Your task to perform on an android device: Open notification settings Image 0: 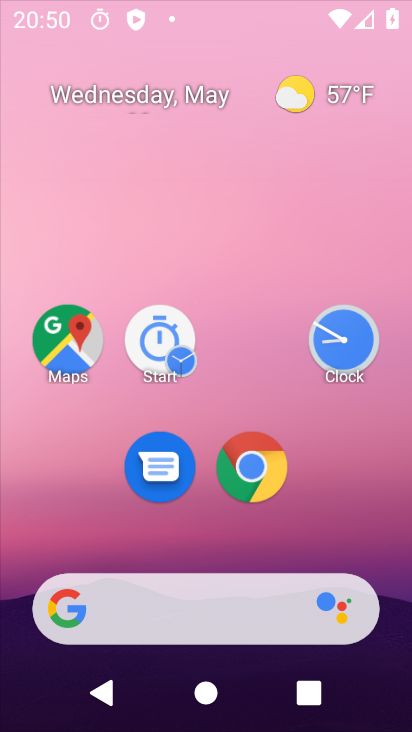
Step 0: click (184, 119)
Your task to perform on an android device: Open notification settings Image 1: 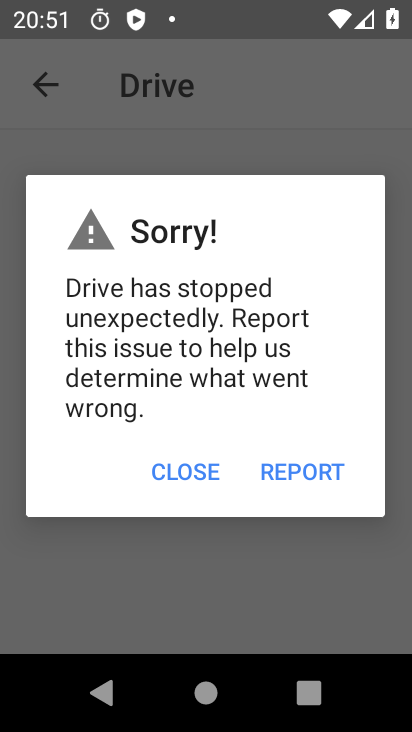
Step 1: click (202, 461)
Your task to perform on an android device: Open notification settings Image 2: 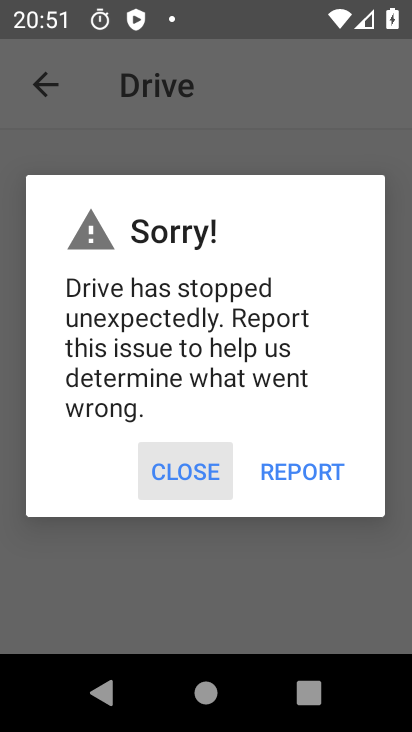
Step 2: click (202, 460)
Your task to perform on an android device: Open notification settings Image 3: 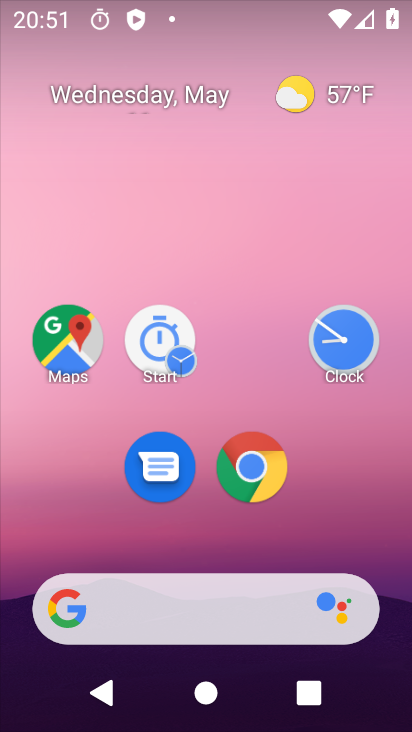
Step 3: drag from (322, 411) to (110, 4)
Your task to perform on an android device: Open notification settings Image 4: 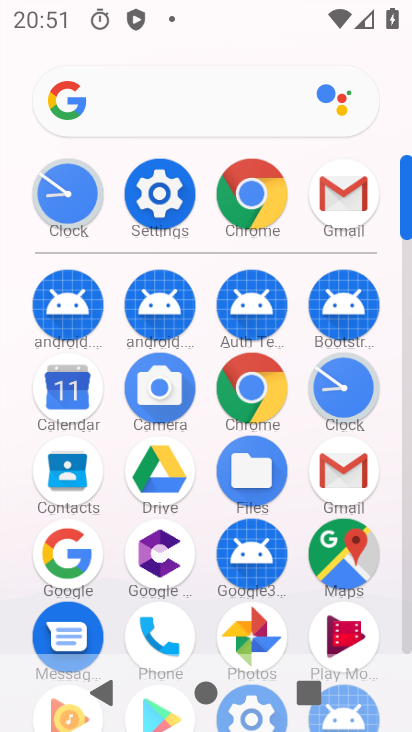
Step 4: click (164, 184)
Your task to perform on an android device: Open notification settings Image 5: 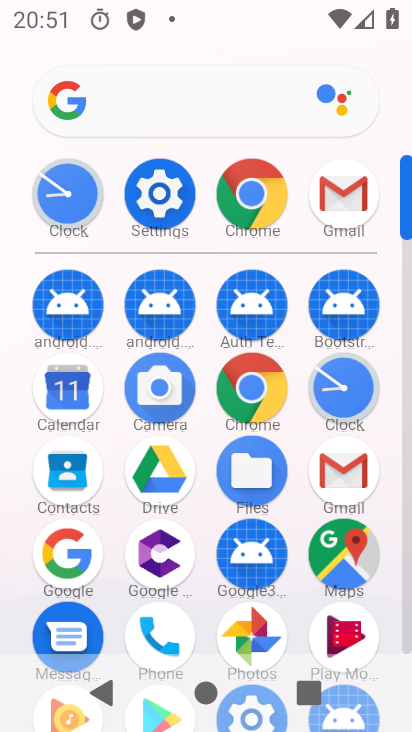
Step 5: click (164, 187)
Your task to perform on an android device: Open notification settings Image 6: 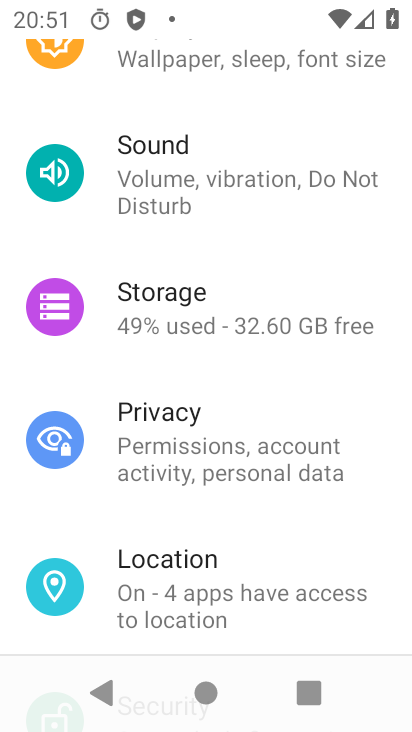
Step 6: drag from (264, 538) to (177, 250)
Your task to perform on an android device: Open notification settings Image 7: 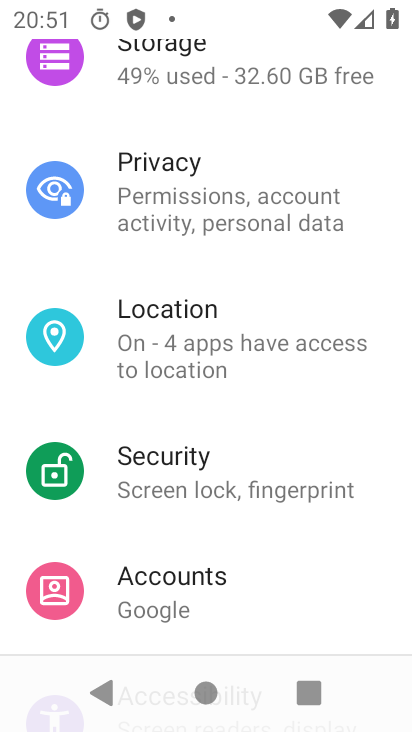
Step 7: drag from (194, 249) to (272, 392)
Your task to perform on an android device: Open notification settings Image 8: 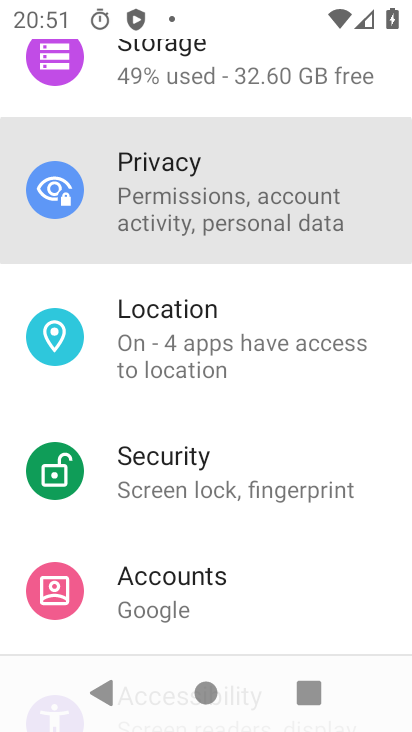
Step 8: drag from (173, 137) to (206, 481)
Your task to perform on an android device: Open notification settings Image 9: 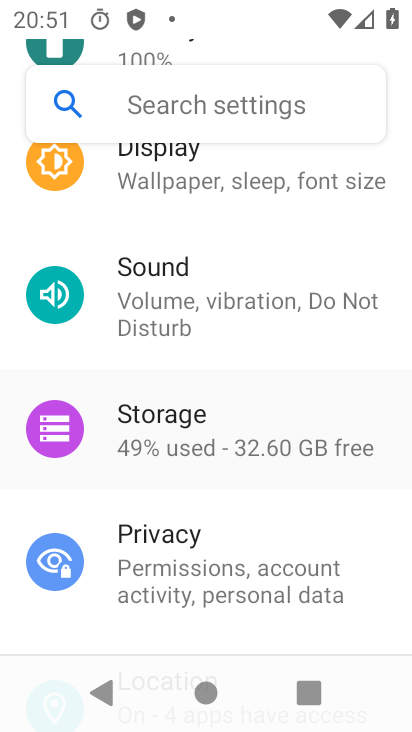
Step 9: drag from (147, 154) to (315, 547)
Your task to perform on an android device: Open notification settings Image 10: 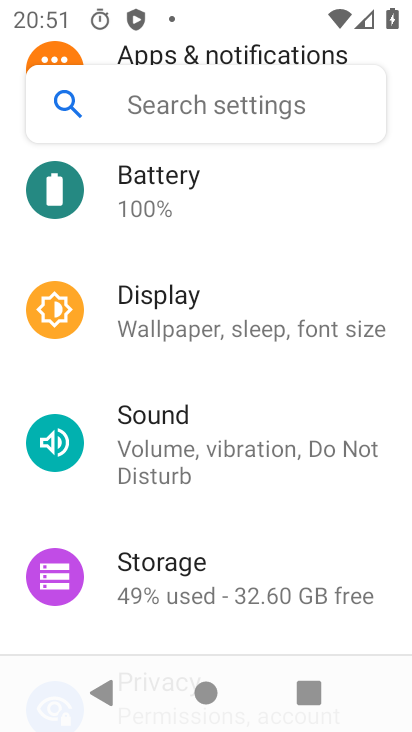
Step 10: drag from (235, 228) to (325, 459)
Your task to perform on an android device: Open notification settings Image 11: 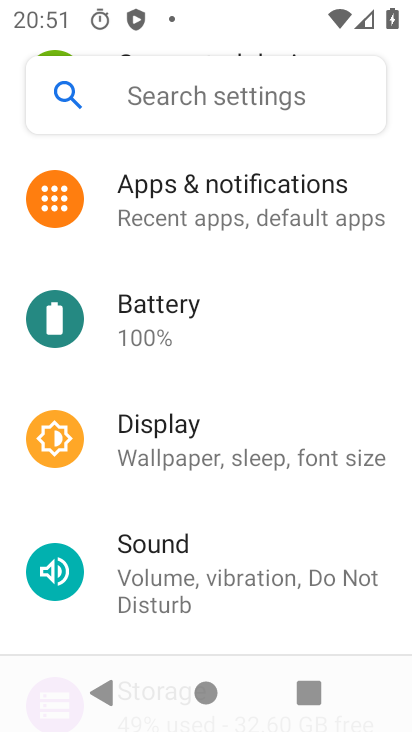
Step 11: drag from (165, 184) to (207, 415)
Your task to perform on an android device: Open notification settings Image 12: 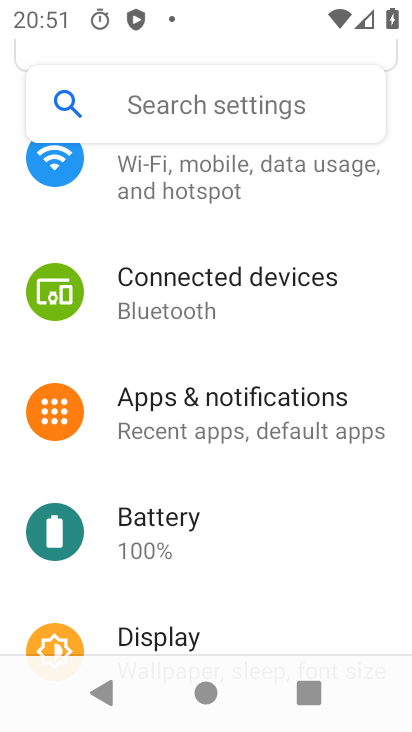
Step 12: click (233, 402)
Your task to perform on an android device: Open notification settings Image 13: 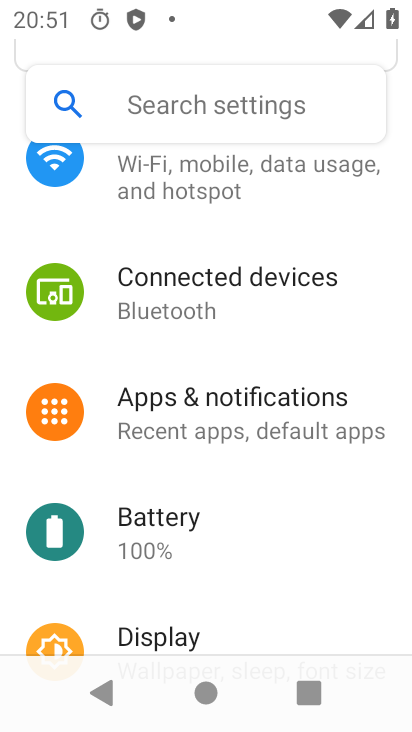
Step 13: click (244, 420)
Your task to perform on an android device: Open notification settings Image 14: 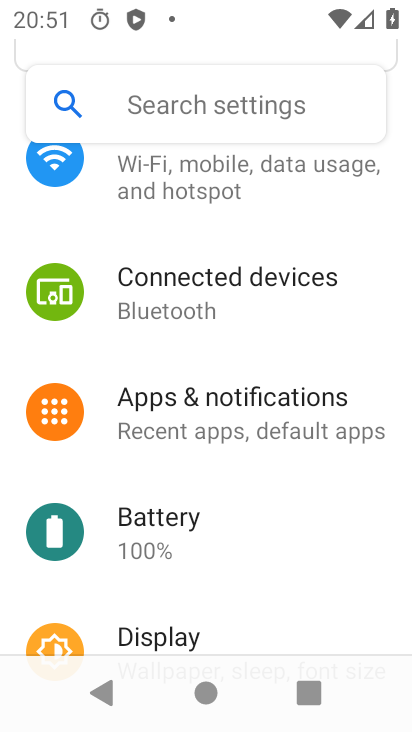
Step 14: drag from (242, 419) to (218, 383)
Your task to perform on an android device: Open notification settings Image 15: 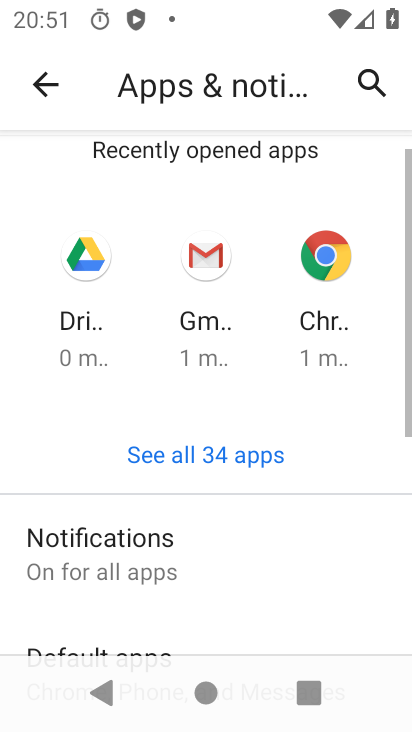
Step 15: click (112, 56)
Your task to perform on an android device: Open notification settings Image 16: 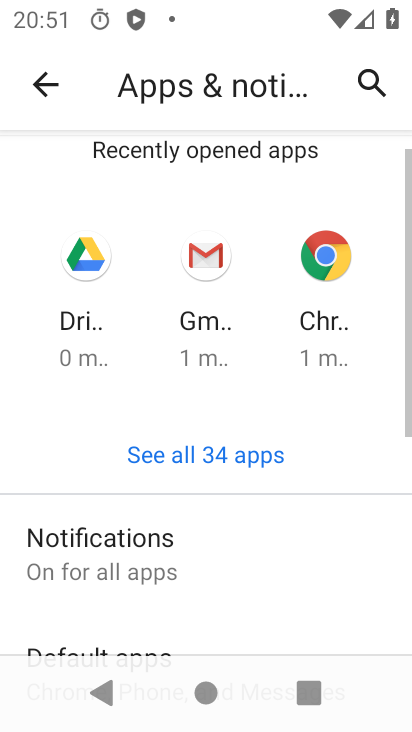
Step 16: drag from (214, 439) to (155, 31)
Your task to perform on an android device: Open notification settings Image 17: 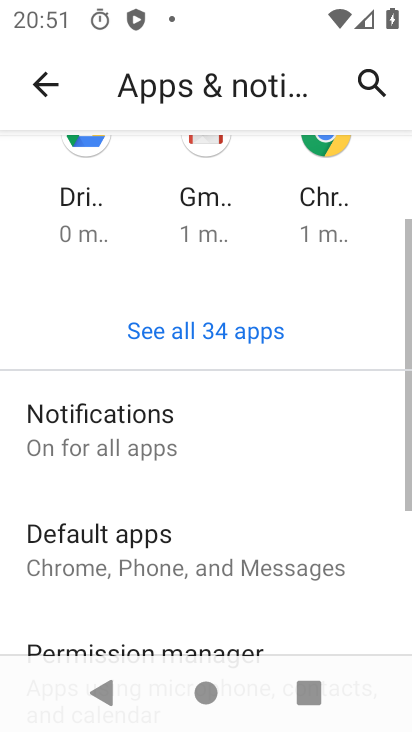
Step 17: drag from (189, 466) to (117, 137)
Your task to perform on an android device: Open notification settings Image 18: 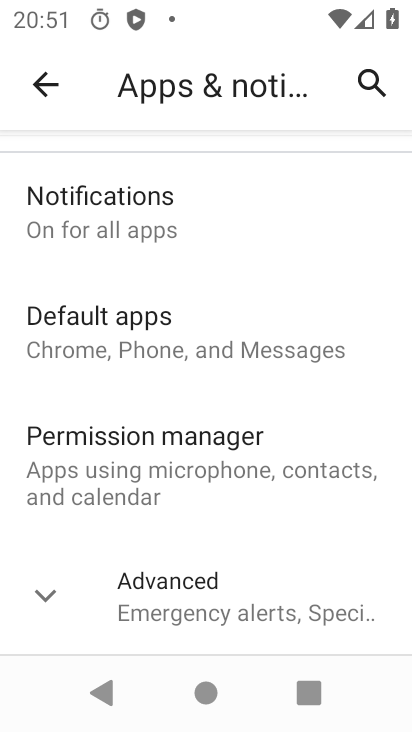
Step 18: click (96, 202)
Your task to perform on an android device: Open notification settings Image 19: 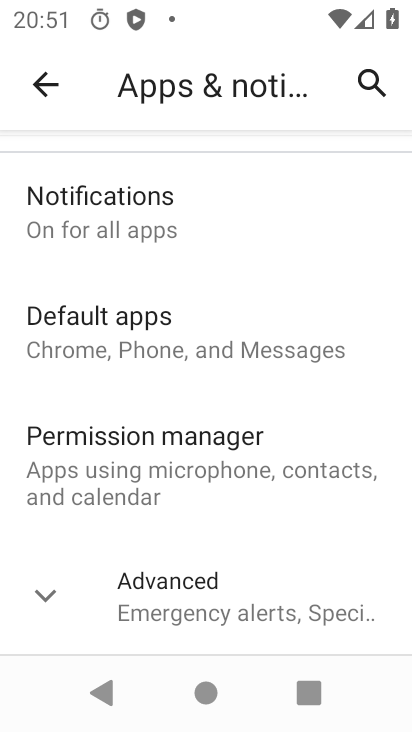
Step 19: click (93, 204)
Your task to perform on an android device: Open notification settings Image 20: 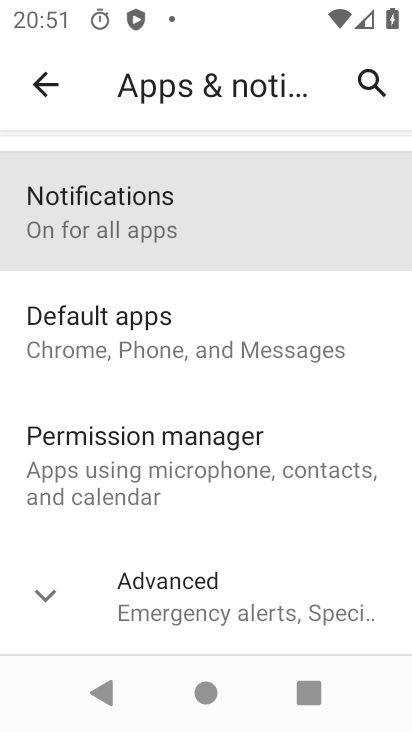
Step 20: click (93, 207)
Your task to perform on an android device: Open notification settings Image 21: 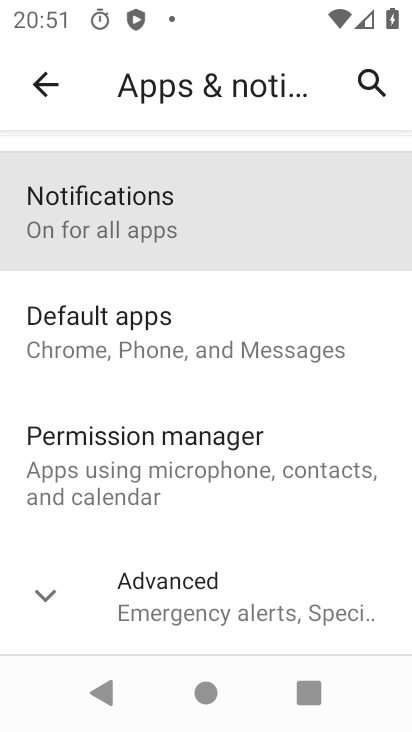
Step 21: click (93, 207)
Your task to perform on an android device: Open notification settings Image 22: 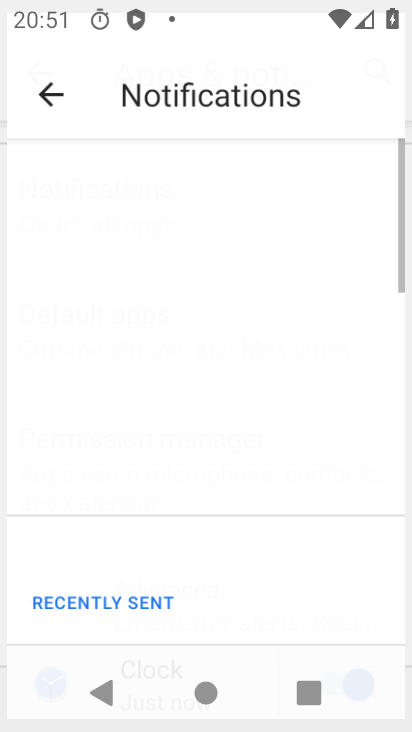
Step 22: click (93, 208)
Your task to perform on an android device: Open notification settings Image 23: 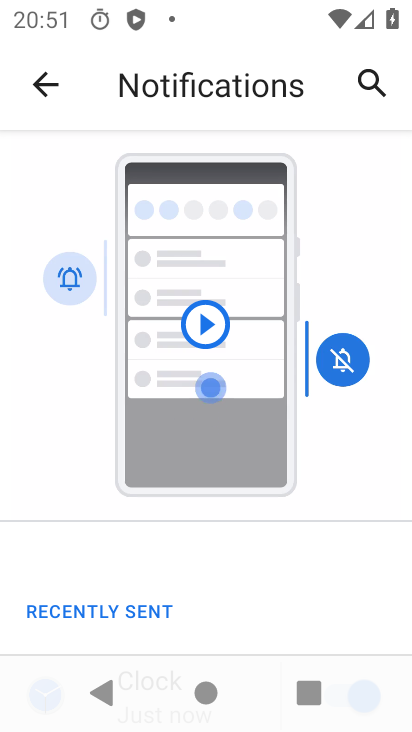
Step 23: click (47, 85)
Your task to perform on an android device: Open notification settings Image 24: 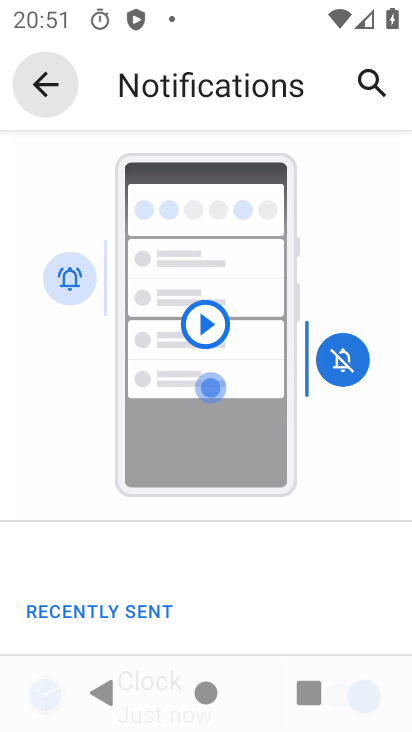
Step 24: click (46, 86)
Your task to perform on an android device: Open notification settings Image 25: 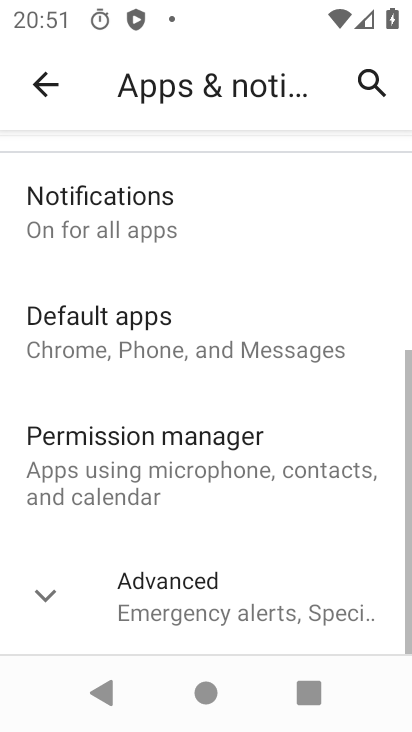
Step 25: drag from (248, 434) to (210, 240)
Your task to perform on an android device: Open notification settings Image 26: 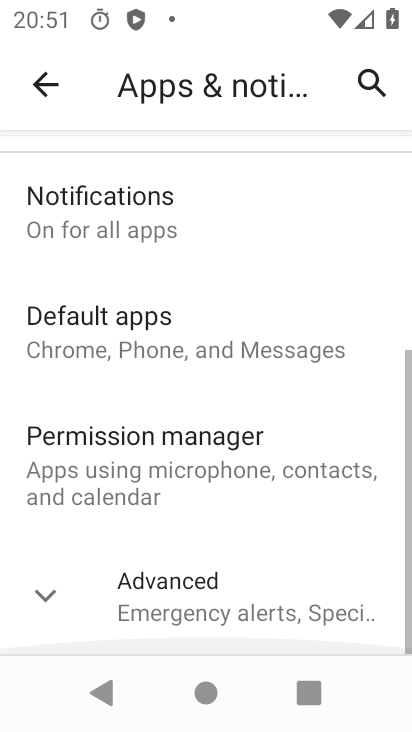
Step 26: click (97, 202)
Your task to perform on an android device: Open notification settings Image 27: 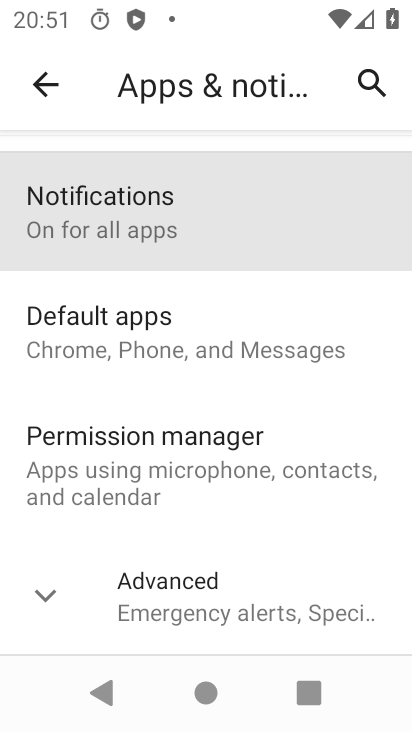
Step 27: click (97, 205)
Your task to perform on an android device: Open notification settings Image 28: 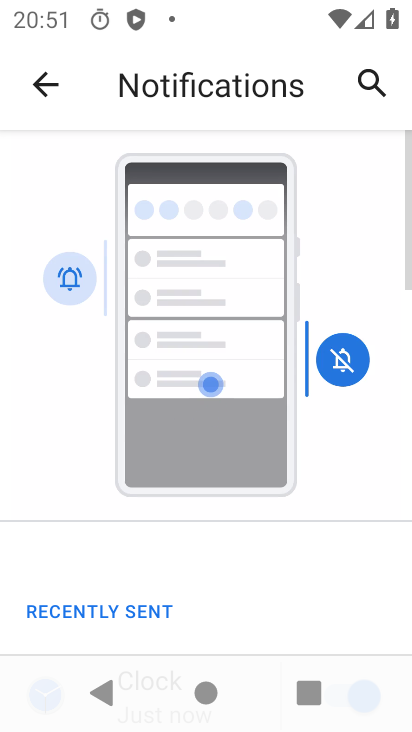
Step 28: drag from (323, 457) to (204, 172)
Your task to perform on an android device: Open notification settings Image 29: 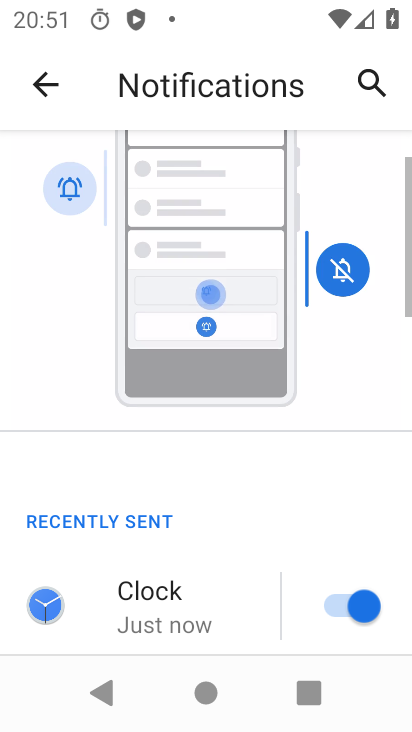
Step 29: drag from (182, 489) to (84, 45)
Your task to perform on an android device: Open notification settings Image 30: 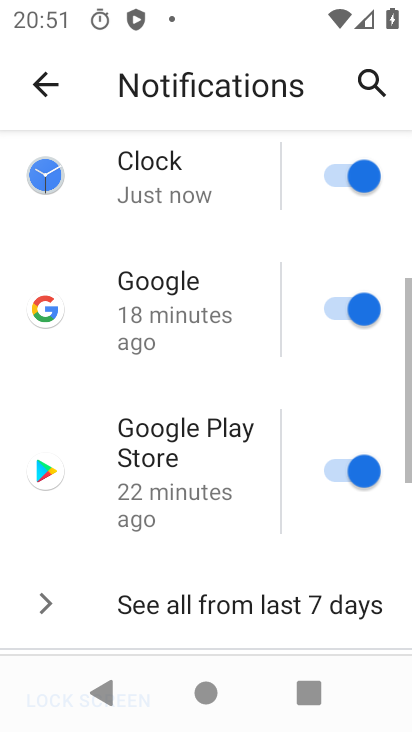
Step 30: drag from (219, 388) to (125, 24)
Your task to perform on an android device: Open notification settings Image 31: 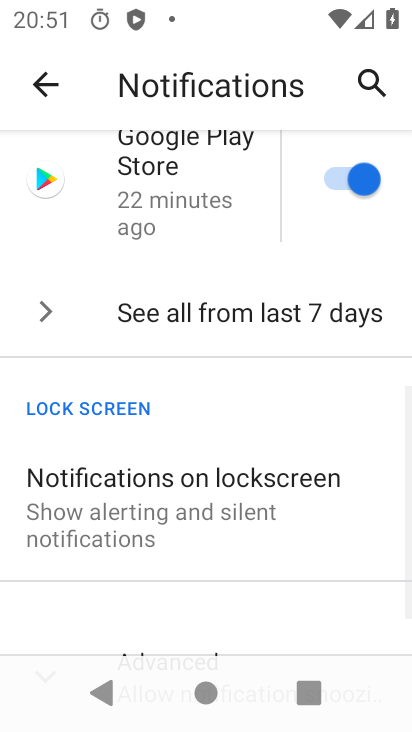
Step 31: drag from (235, 505) to (111, 5)
Your task to perform on an android device: Open notification settings Image 32: 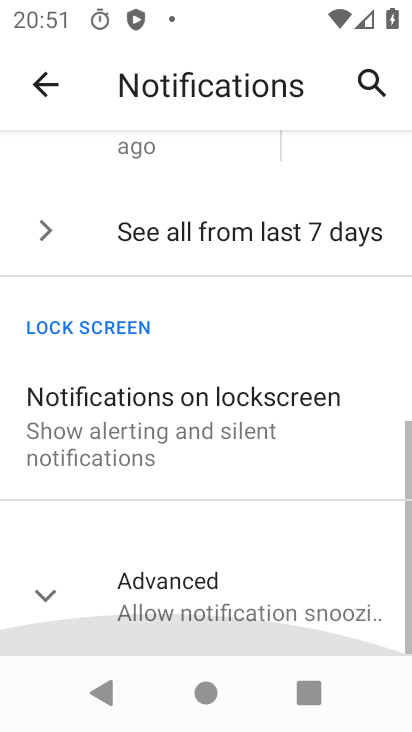
Step 32: drag from (236, 397) to (197, 94)
Your task to perform on an android device: Open notification settings Image 33: 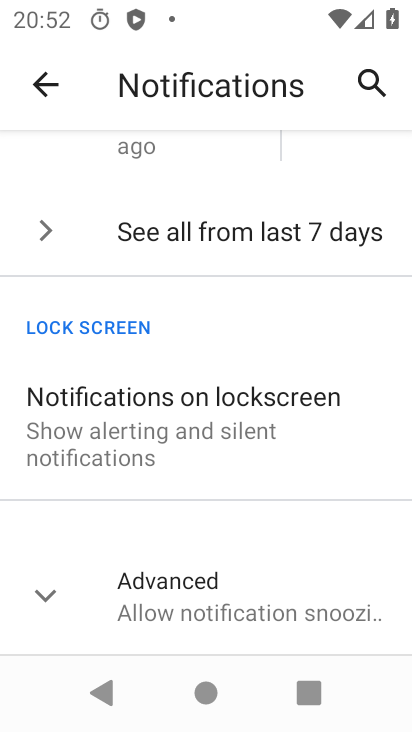
Step 33: drag from (228, 493) to (182, 247)
Your task to perform on an android device: Open notification settings Image 34: 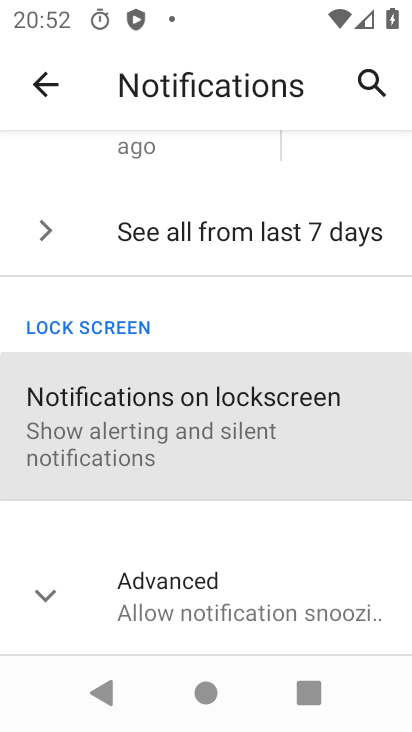
Step 34: drag from (249, 497) to (238, 52)
Your task to perform on an android device: Open notification settings Image 35: 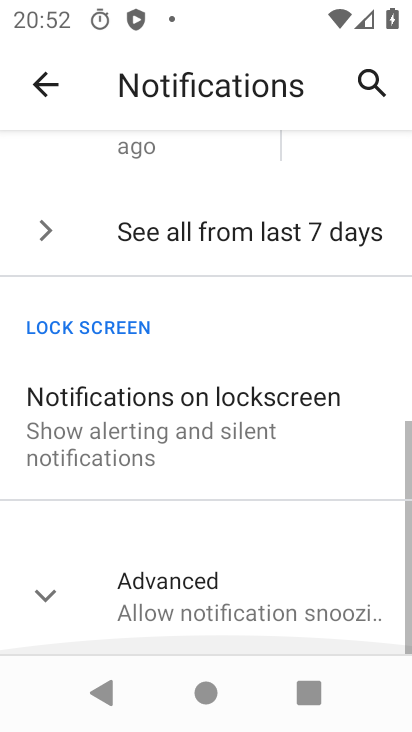
Step 35: drag from (227, 557) to (323, 50)
Your task to perform on an android device: Open notification settings Image 36: 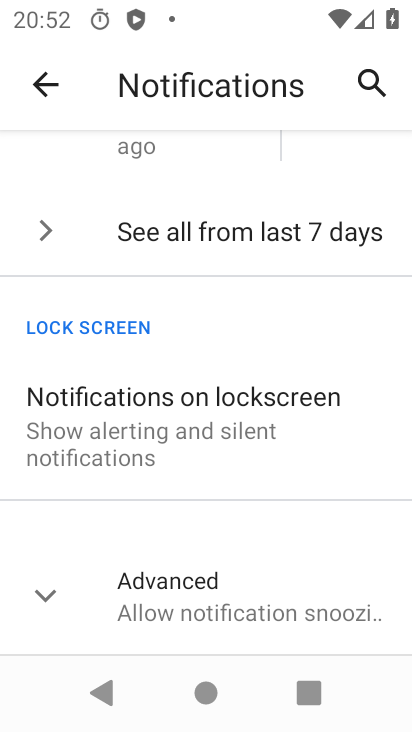
Step 36: click (217, 614)
Your task to perform on an android device: Open notification settings Image 37: 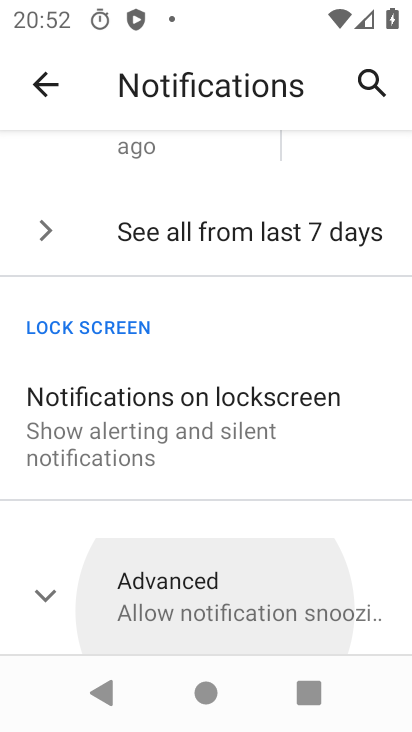
Step 37: click (190, 586)
Your task to perform on an android device: Open notification settings Image 38: 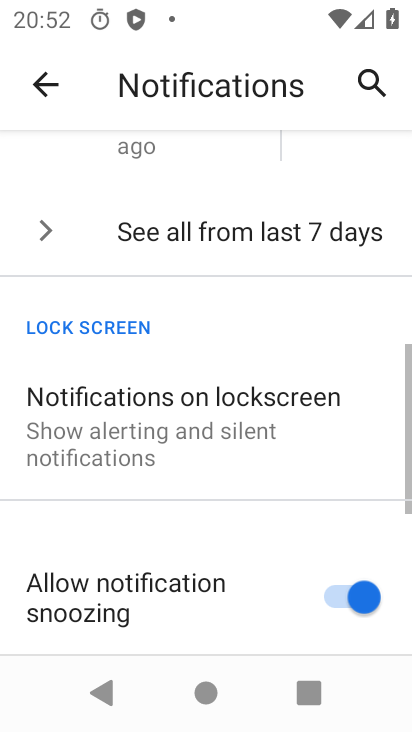
Step 38: drag from (233, 559) to (200, 18)
Your task to perform on an android device: Open notification settings Image 39: 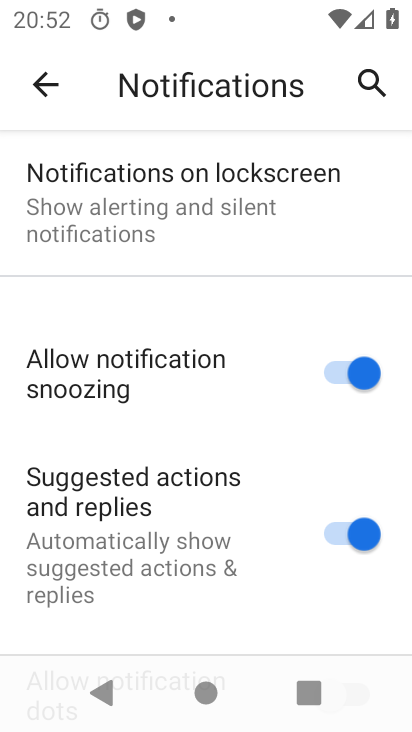
Step 39: drag from (242, 561) to (213, 159)
Your task to perform on an android device: Open notification settings Image 40: 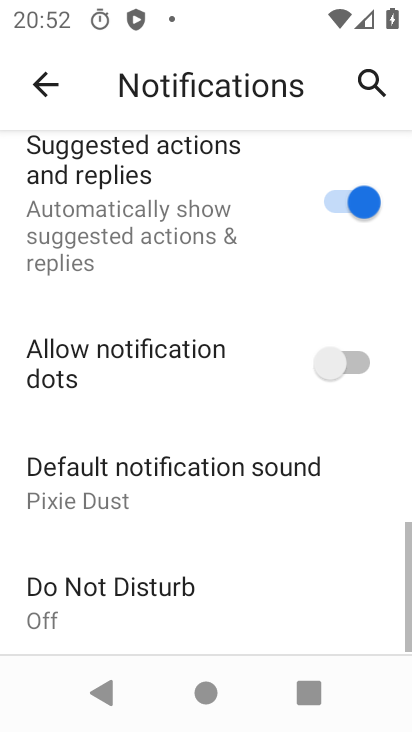
Step 40: drag from (226, 457) to (183, 181)
Your task to perform on an android device: Open notification settings Image 41: 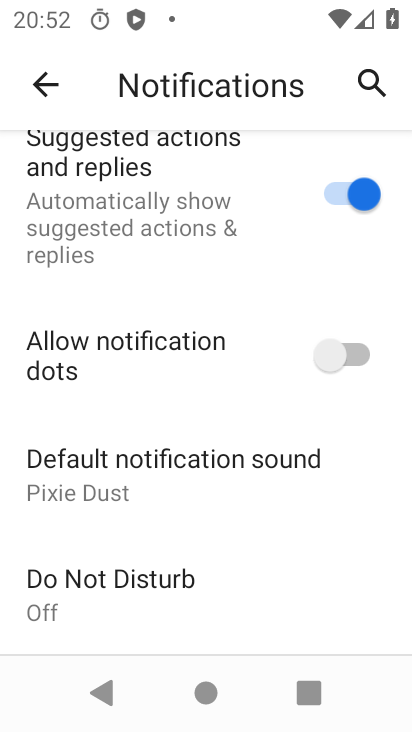
Step 41: drag from (258, 483) to (240, 20)
Your task to perform on an android device: Open notification settings Image 42: 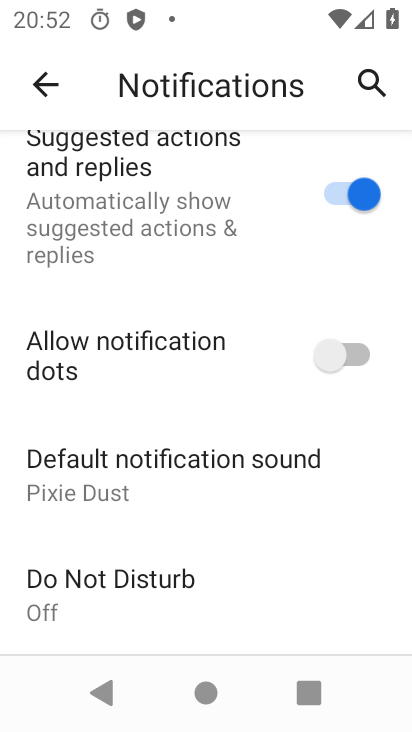
Step 42: drag from (239, 400) to (218, 94)
Your task to perform on an android device: Open notification settings Image 43: 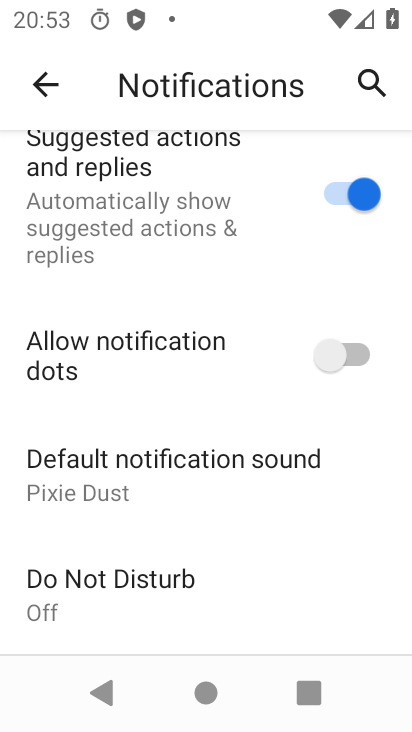
Step 43: click (336, 347)
Your task to perform on an android device: Open notification settings Image 44: 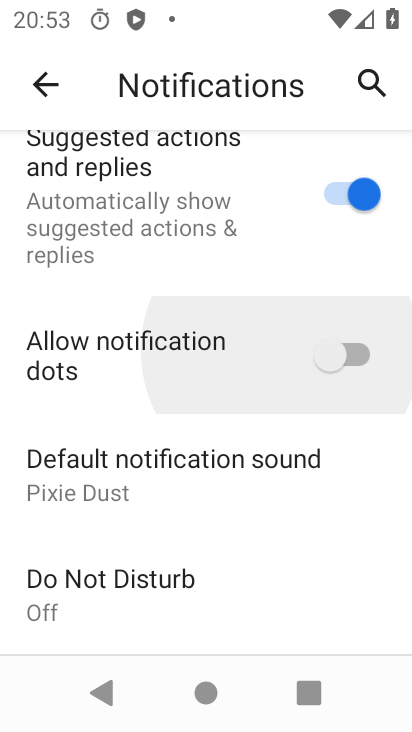
Step 44: click (336, 347)
Your task to perform on an android device: Open notification settings Image 45: 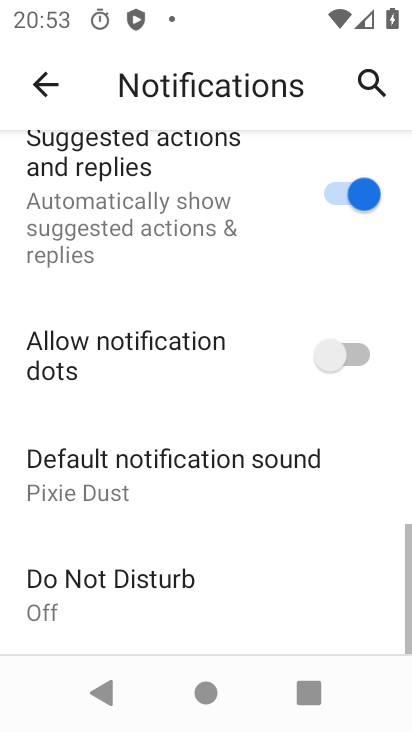
Step 45: drag from (304, 404) to (269, 81)
Your task to perform on an android device: Open notification settings Image 46: 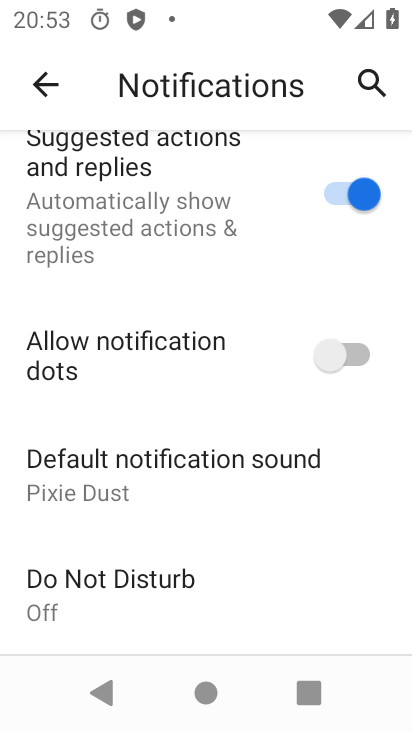
Step 46: click (336, 357)
Your task to perform on an android device: Open notification settings Image 47: 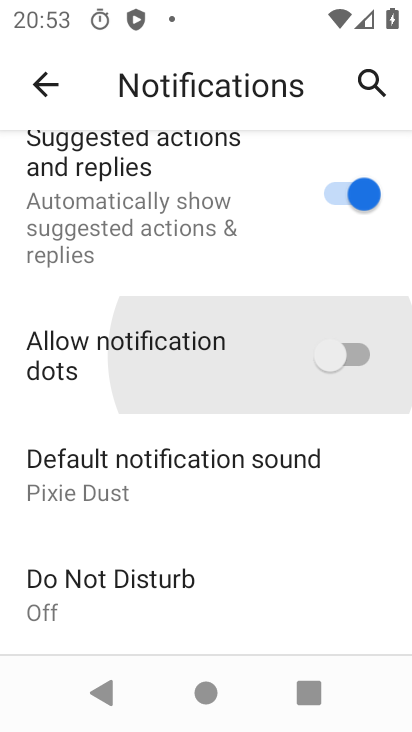
Step 47: click (336, 357)
Your task to perform on an android device: Open notification settings Image 48: 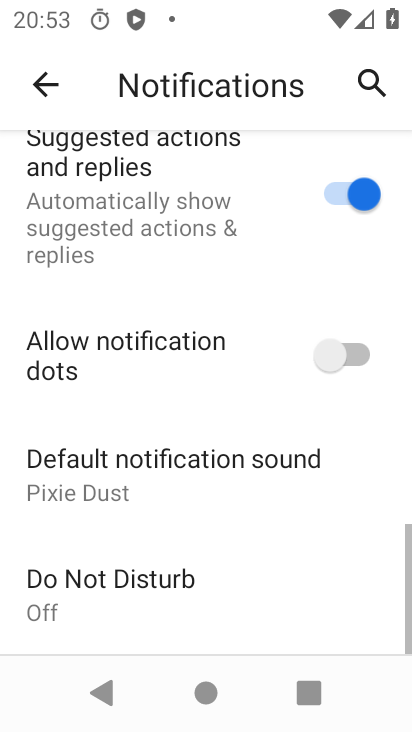
Step 48: click (262, 446)
Your task to perform on an android device: Open notification settings Image 49: 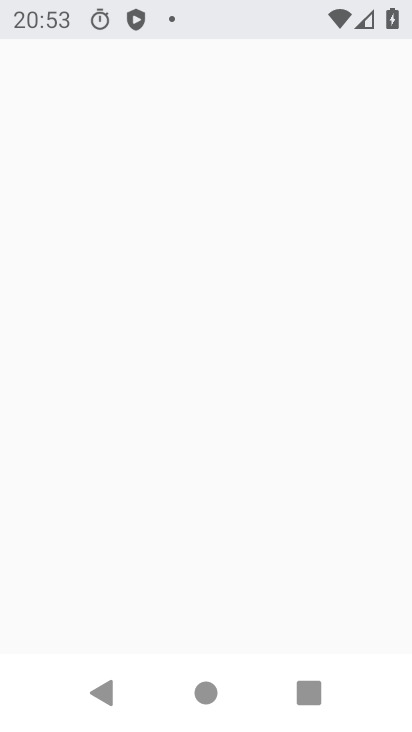
Step 49: click (339, 344)
Your task to perform on an android device: Open notification settings Image 50: 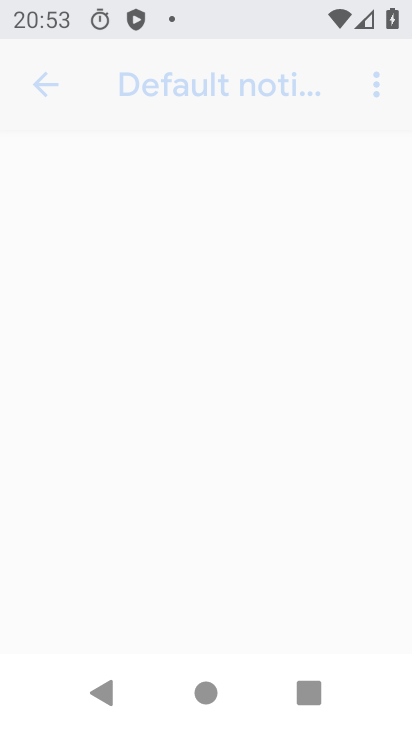
Step 50: click (339, 344)
Your task to perform on an android device: Open notification settings Image 51: 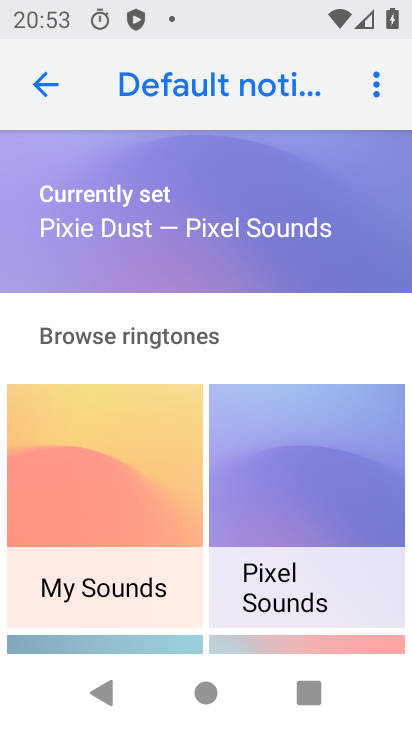
Step 51: click (30, 86)
Your task to perform on an android device: Open notification settings Image 52: 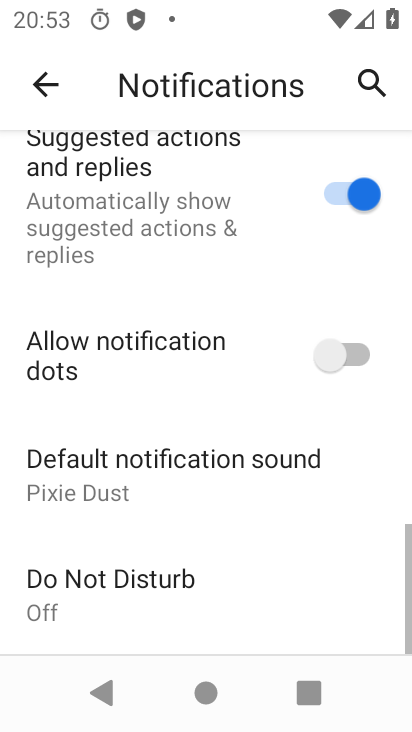
Step 52: click (33, 78)
Your task to perform on an android device: Open notification settings Image 53: 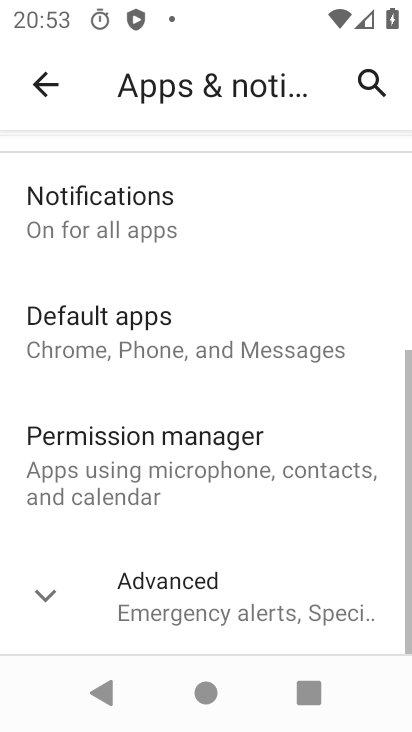
Step 53: drag from (247, 429) to (254, 121)
Your task to perform on an android device: Open notification settings Image 54: 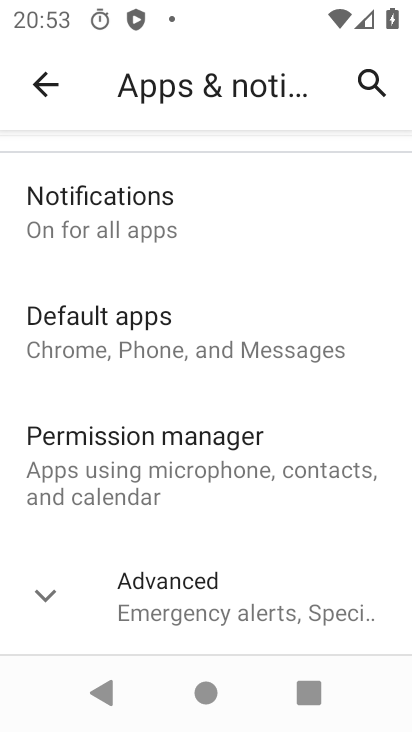
Step 54: click (50, 95)
Your task to perform on an android device: Open notification settings Image 55: 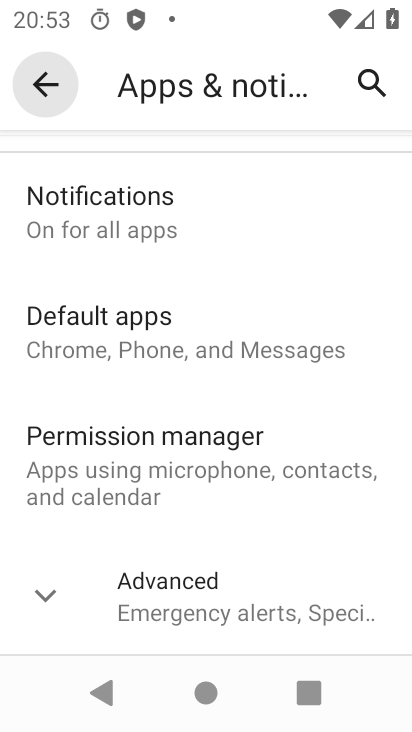
Step 55: click (50, 92)
Your task to perform on an android device: Open notification settings Image 56: 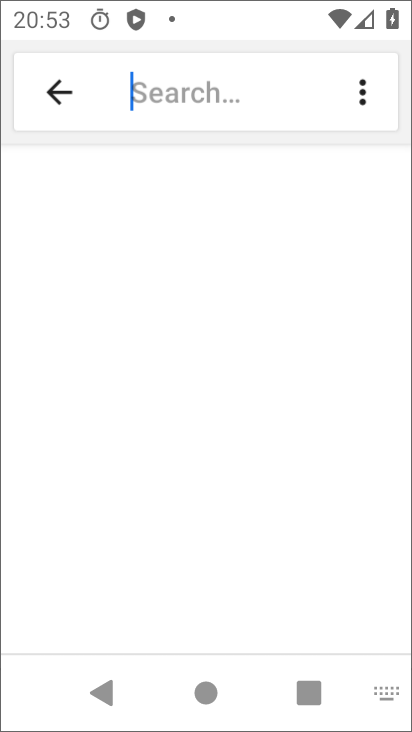
Step 56: drag from (251, 371) to (240, 115)
Your task to perform on an android device: Open notification settings Image 57: 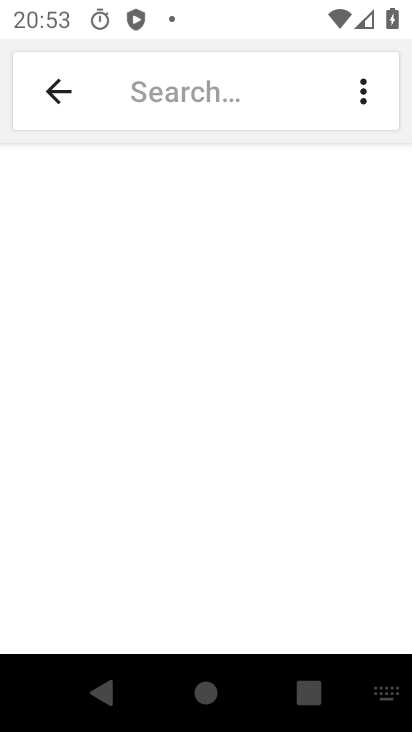
Step 57: drag from (290, 462) to (289, 268)
Your task to perform on an android device: Open notification settings Image 58: 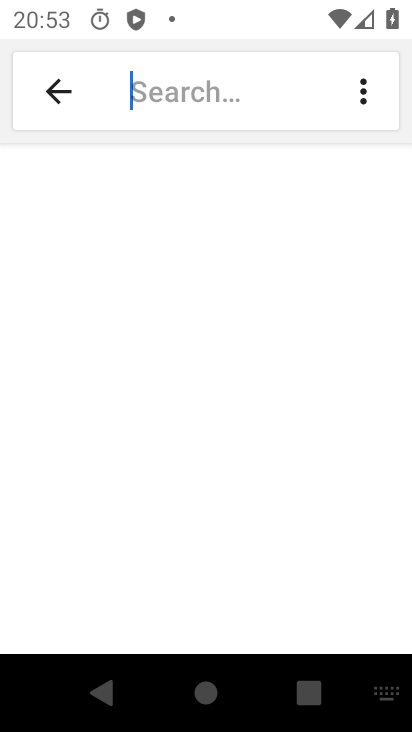
Step 58: click (54, 67)
Your task to perform on an android device: Open notification settings Image 59: 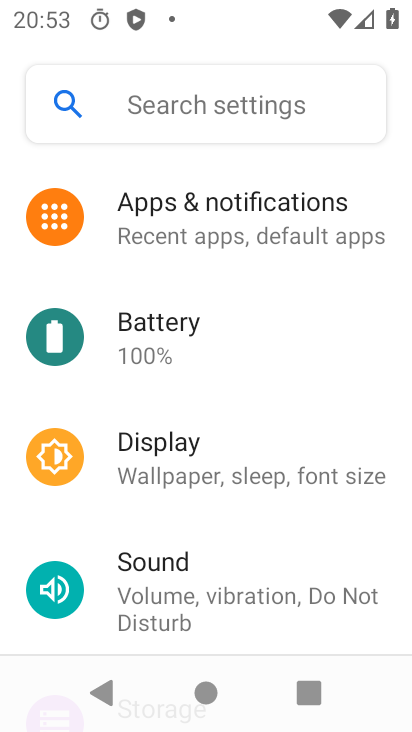
Step 59: click (55, 78)
Your task to perform on an android device: Open notification settings Image 60: 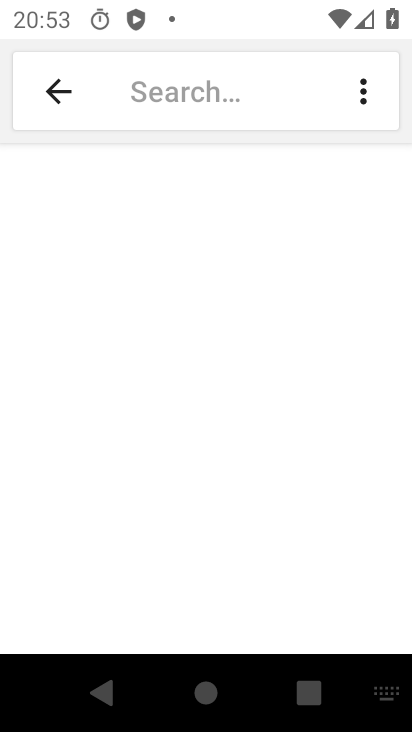
Step 60: click (47, 74)
Your task to perform on an android device: Open notification settings Image 61: 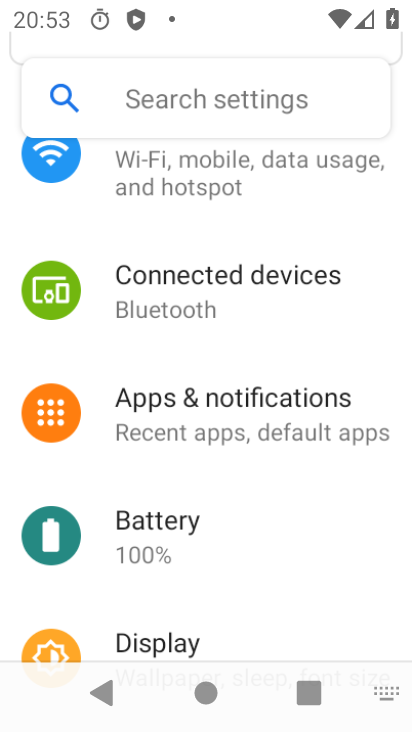
Step 61: click (61, 93)
Your task to perform on an android device: Open notification settings Image 62: 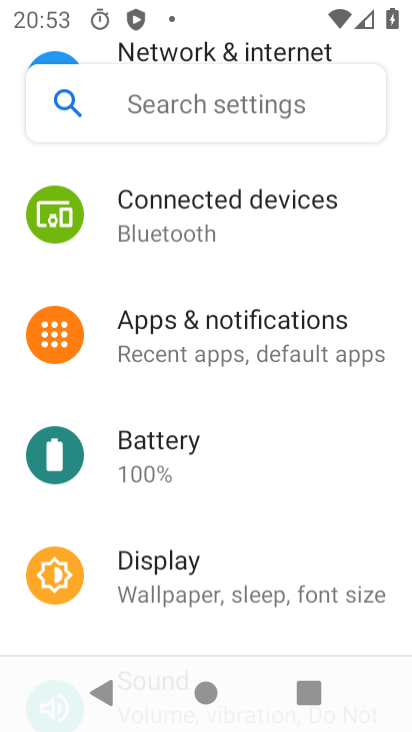
Step 62: click (61, 91)
Your task to perform on an android device: Open notification settings Image 63: 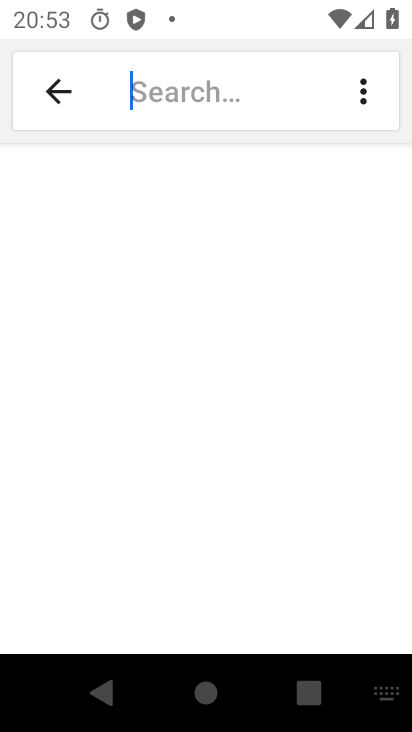
Step 63: click (54, 88)
Your task to perform on an android device: Open notification settings Image 64: 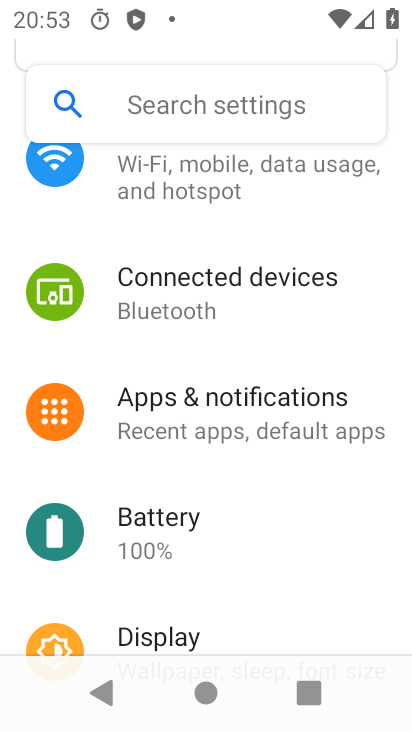
Step 64: drag from (271, 555) to (244, 311)
Your task to perform on an android device: Open notification settings Image 65: 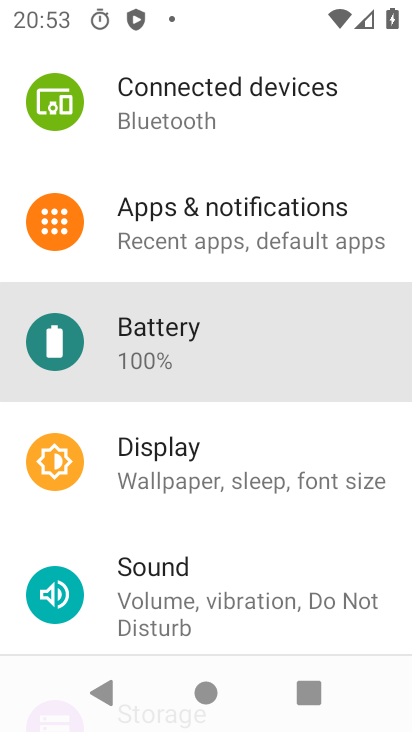
Step 65: drag from (239, 492) to (226, 563)
Your task to perform on an android device: Open notification settings Image 66: 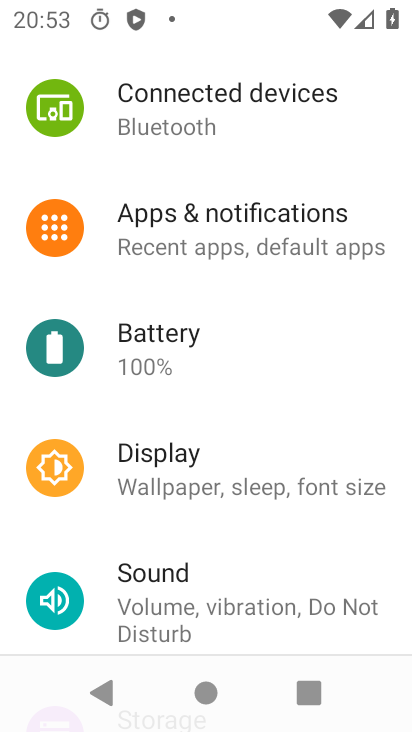
Step 66: drag from (165, 302) to (280, 609)
Your task to perform on an android device: Open notification settings Image 67: 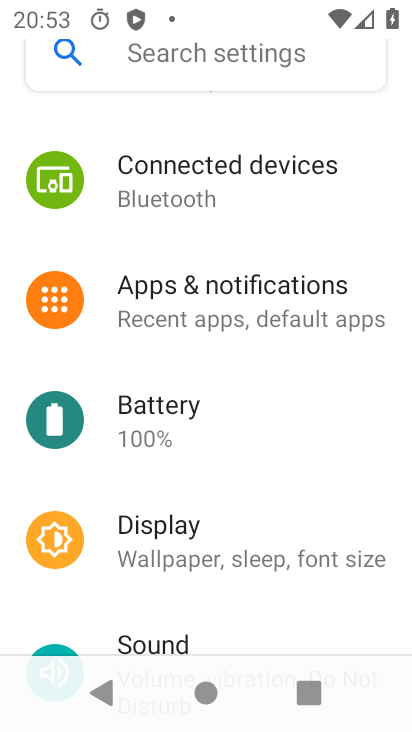
Step 67: drag from (222, 237) to (232, 540)
Your task to perform on an android device: Open notification settings Image 68: 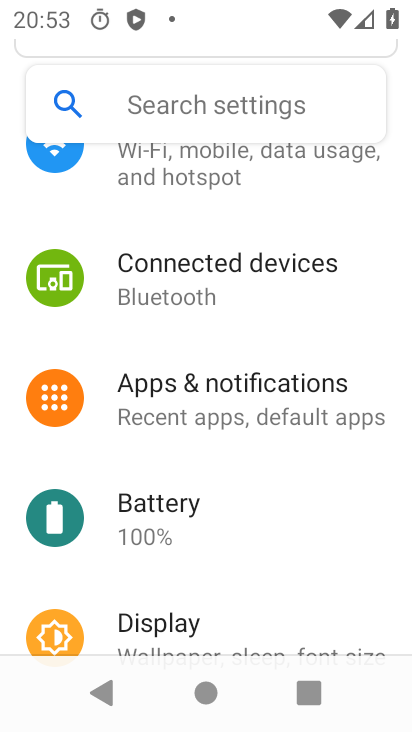
Step 68: click (252, 405)
Your task to perform on an android device: Open notification settings Image 69: 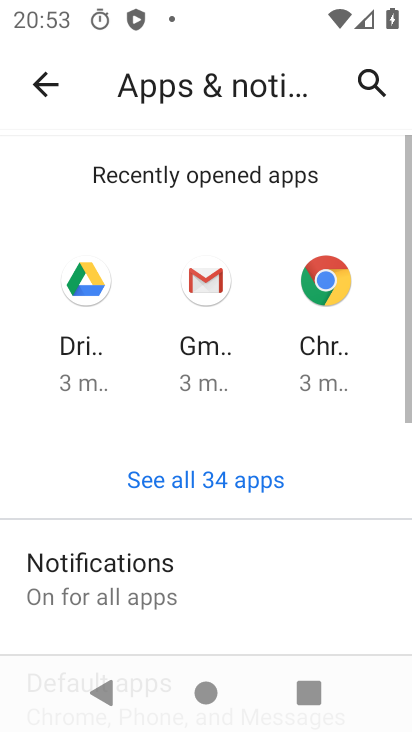
Step 69: drag from (198, 560) to (210, 142)
Your task to perform on an android device: Open notification settings Image 70: 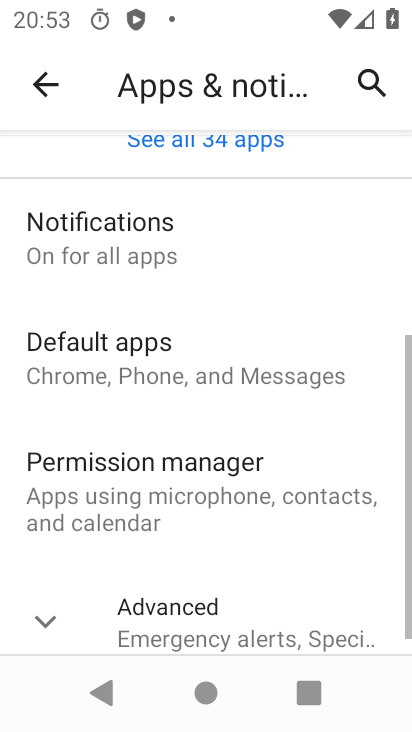
Step 70: drag from (220, 357) to (220, 85)
Your task to perform on an android device: Open notification settings Image 71: 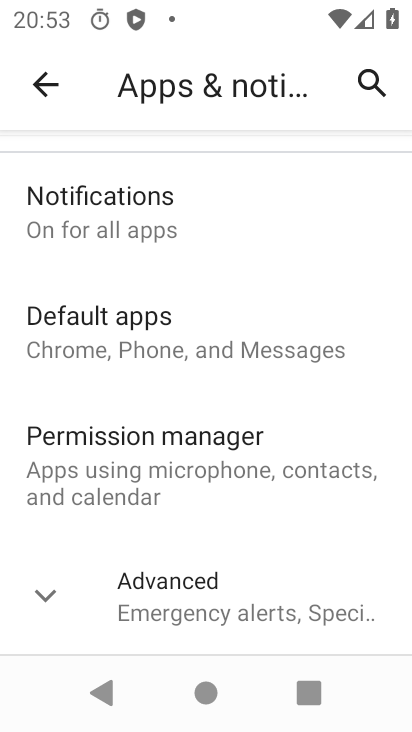
Step 71: drag from (232, 400) to (228, 13)
Your task to perform on an android device: Open notification settings Image 72: 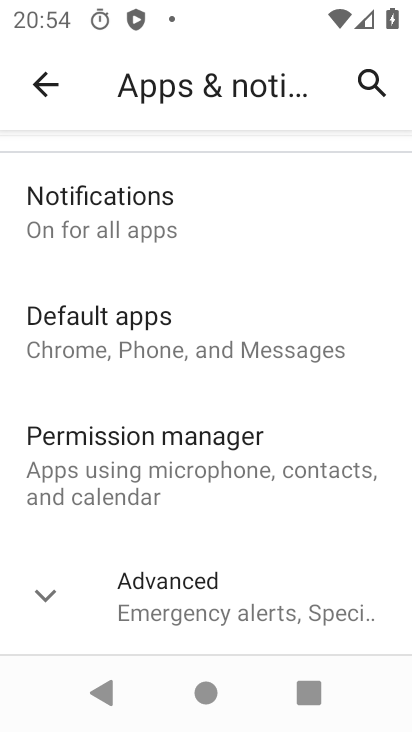
Step 72: click (101, 192)
Your task to perform on an android device: Open notification settings Image 73: 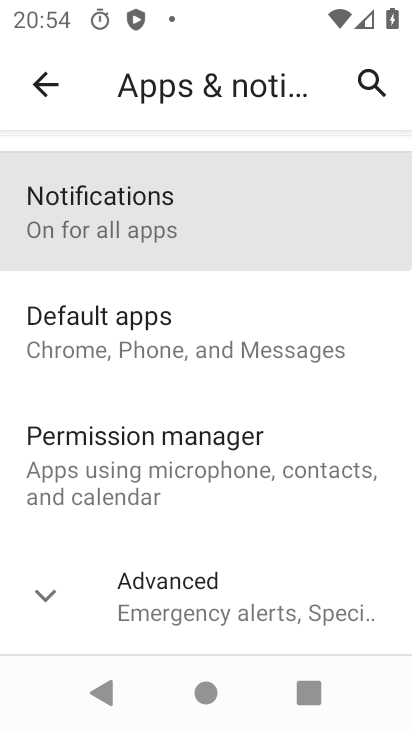
Step 73: click (101, 191)
Your task to perform on an android device: Open notification settings Image 74: 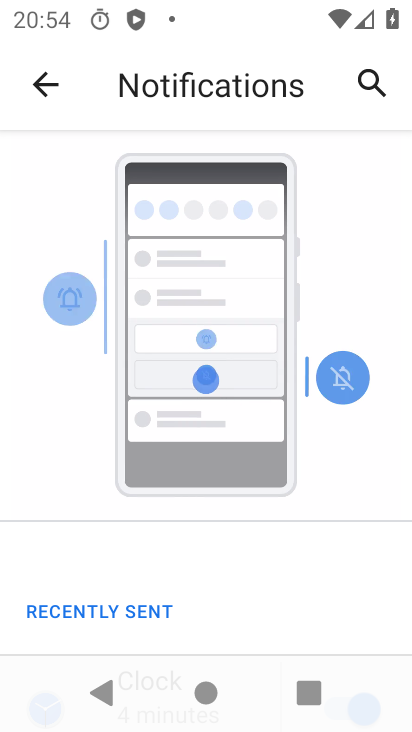
Step 74: drag from (212, 396) to (136, 45)
Your task to perform on an android device: Open notification settings Image 75: 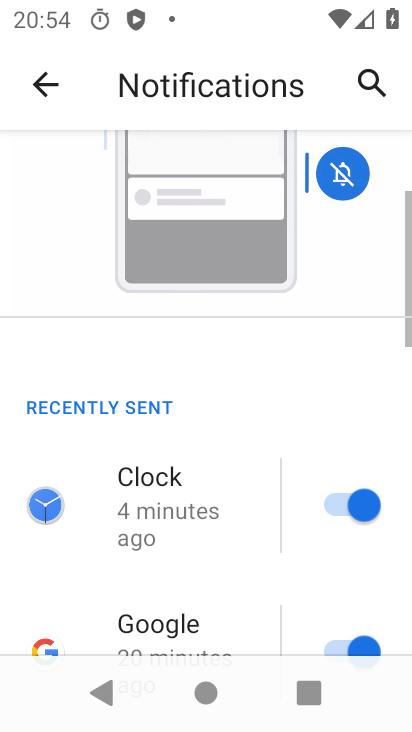
Step 75: drag from (262, 489) to (229, 61)
Your task to perform on an android device: Open notification settings Image 76: 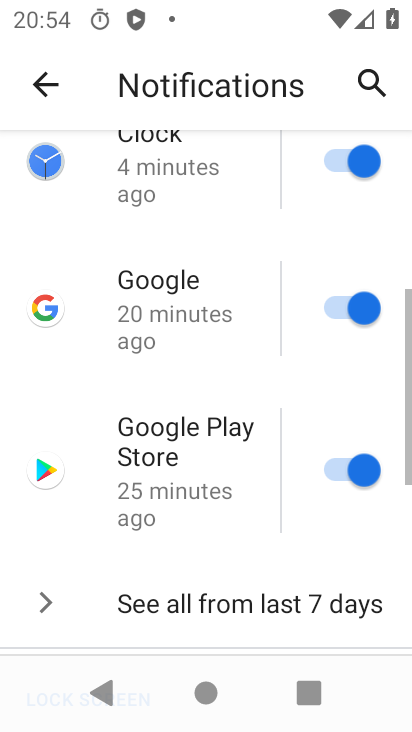
Step 76: drag from (284, 391) to (269, 102)
Your task to perform on an android device: Open notification settings Image 77: 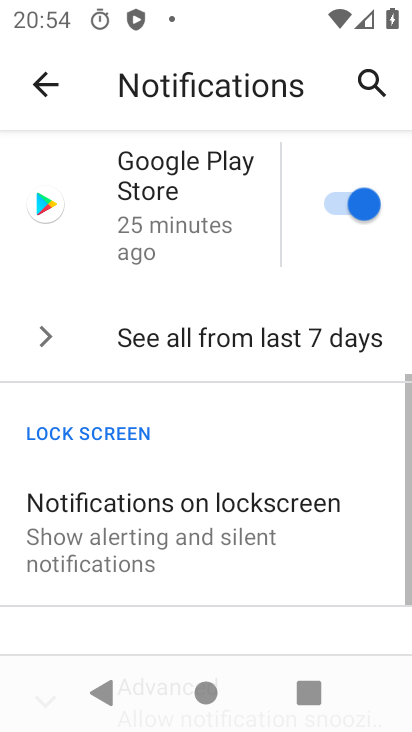
Step 77: drag from (249, 386) to (219, 34)
Your task to perform on an android device: Open notification settings Image 78: 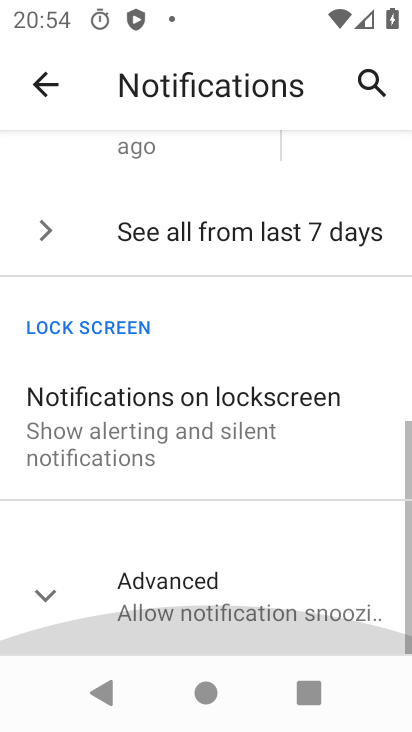
Step 78: drag from (234, 379) to (225, 125)
Your task to perform on an android device: Open notification settings Image 79: 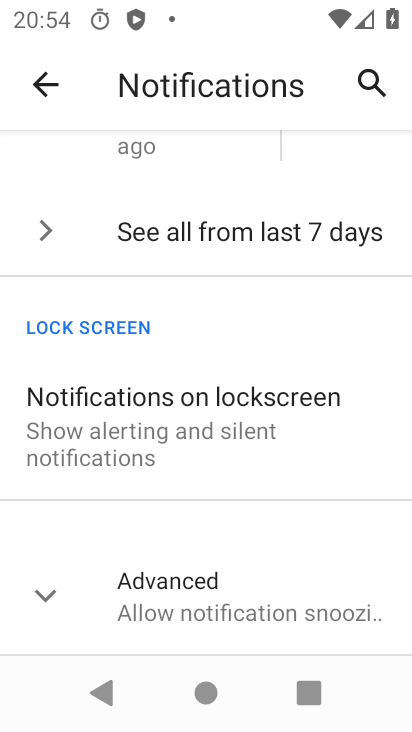
Step 79: click (192, 599)
Your task to perform on an android device: Open notification settings Image 80: 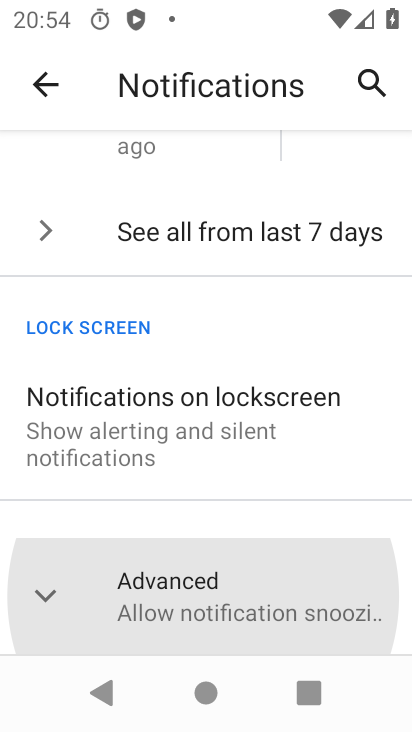
Step 80: click (192, 599)
Your task to perform on an android device: Open notification settings Image 81: 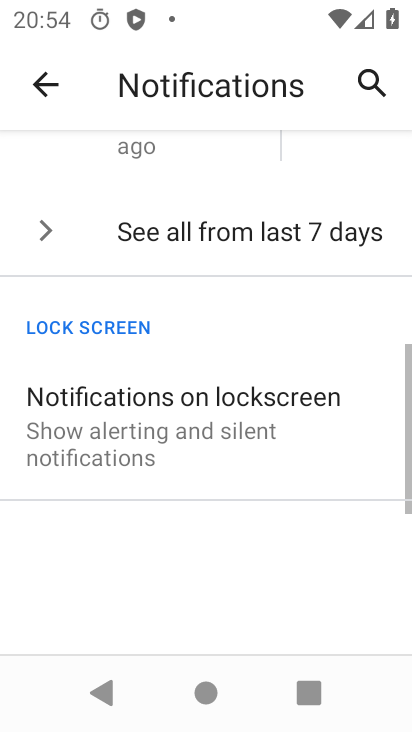
Step 81: click (190, 599)
Your task to perform on an android device: Open notification settings Image 82: 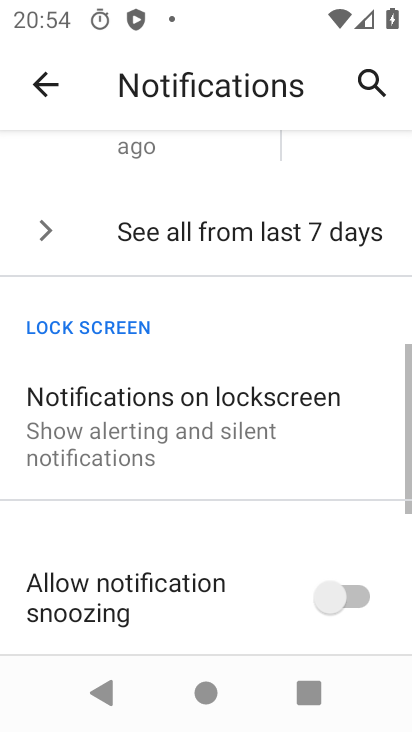
Step 82: task complete